Your task to perform on an android device: Show me the alarms in the clock app Image 0: 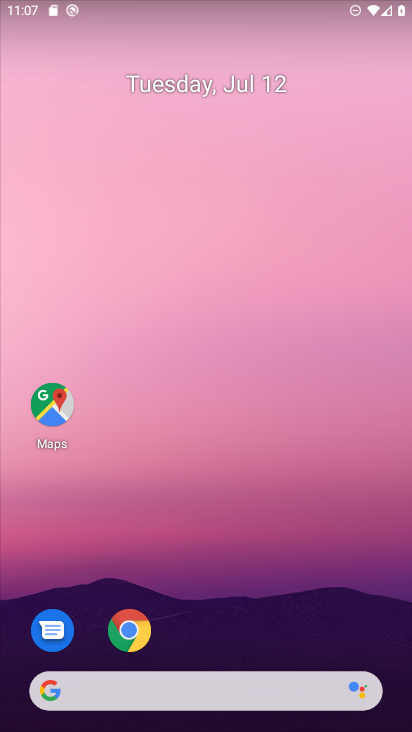
Step 0: drag from (276, 627) to (1, 606)
Your task to perform on an android device: Show me the alarms in the clock app Image 1: 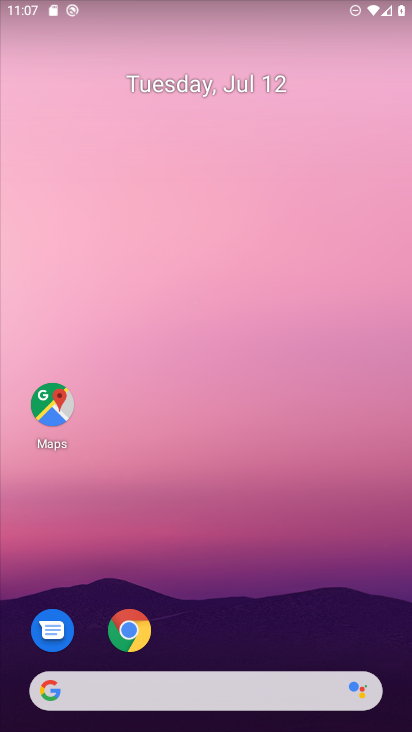
Step 1: click (211, 394)
Your task to perform on an android device: Show me the alarms in the clock app Image 2: 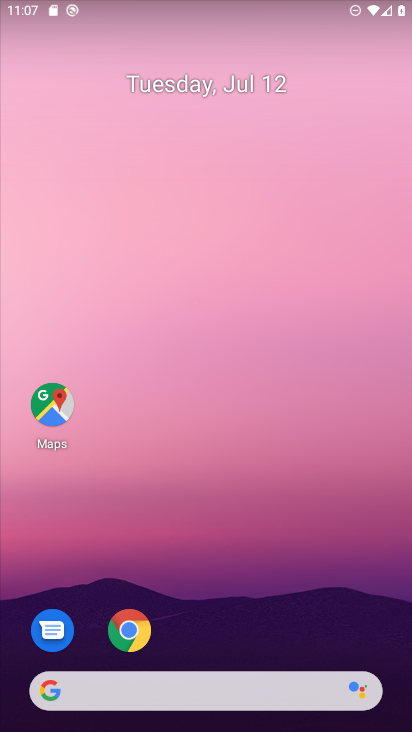
Step 2: drag from (274, 454) to (221, 73)
Your task to perform on an android device: Show me the alarms in the clock app Image 3: 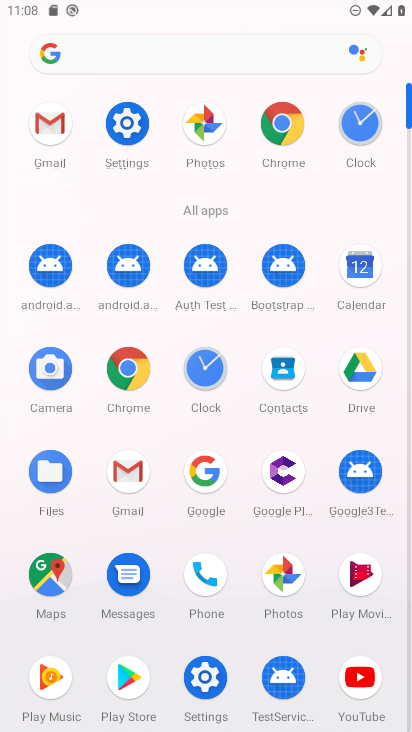
Step 3: click (207, 367)
Your task to perform on an android device: Show me the alarms in the clock app Image 4: 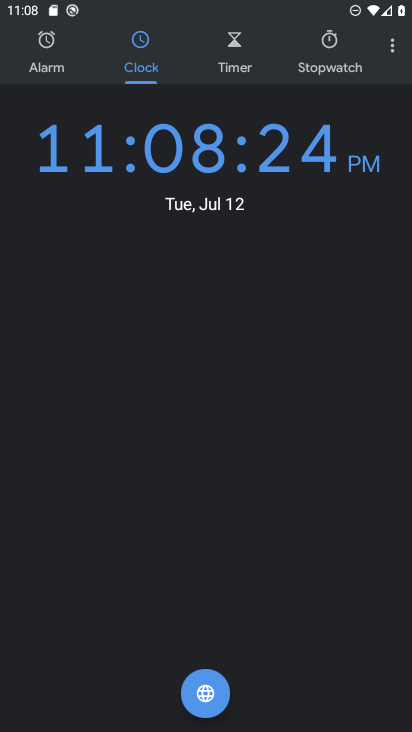
Step 4: click (398, 40)
Your task to perform on an android device: Show me the alarms in the clock app Image 5: 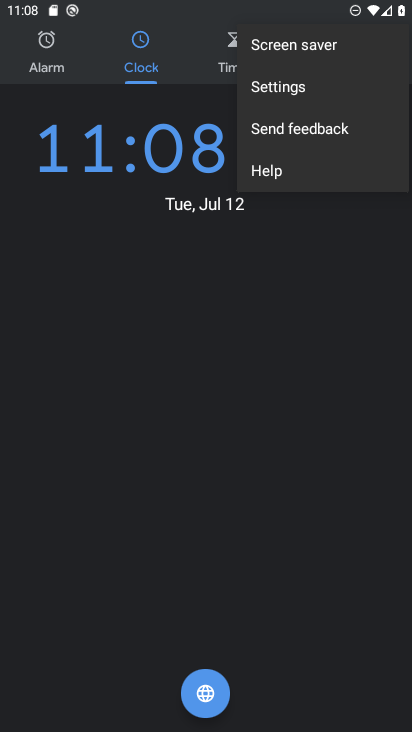
Step 5: click (134, 463)
Your task to perform on an android device: Show me the alarms in the clock app Image 6: 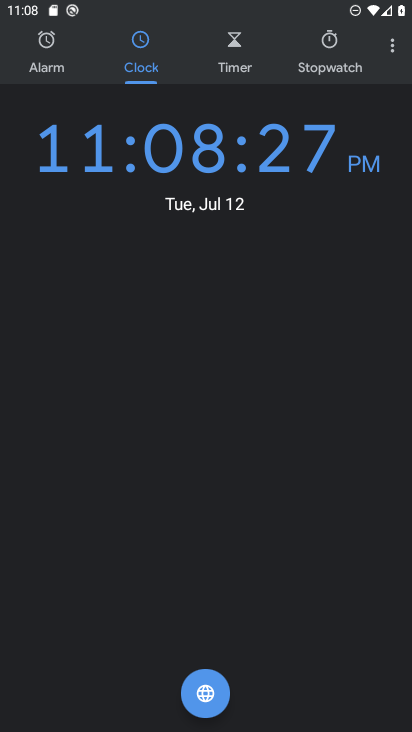
Step 6: click (62, 57)
Your task to perform on an android device: Show me the alarms in the clock app Image 7: 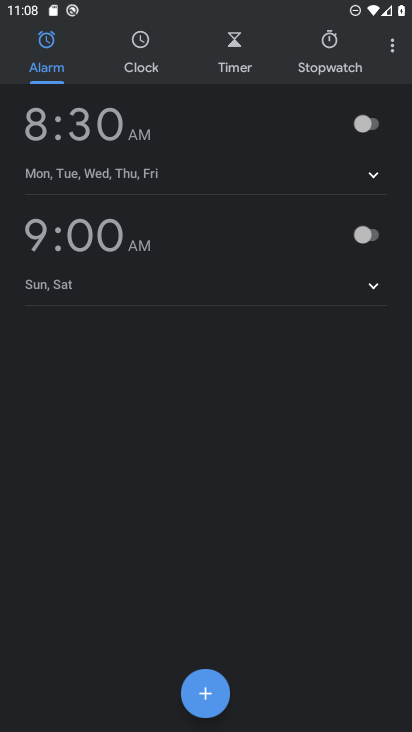
Step 7: task complete